Your task to perform on an android device: toggle sleep mode Image 0: 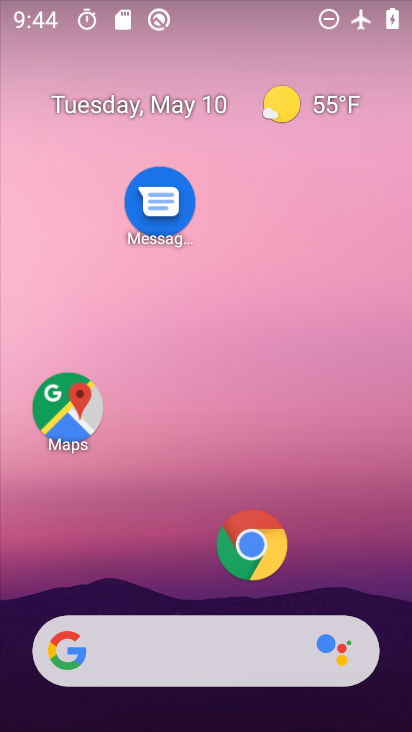
Step 0: drag from (185, 589) to (192, 161)
Your task to perform on an android device: toggle sleep mode Image 1: 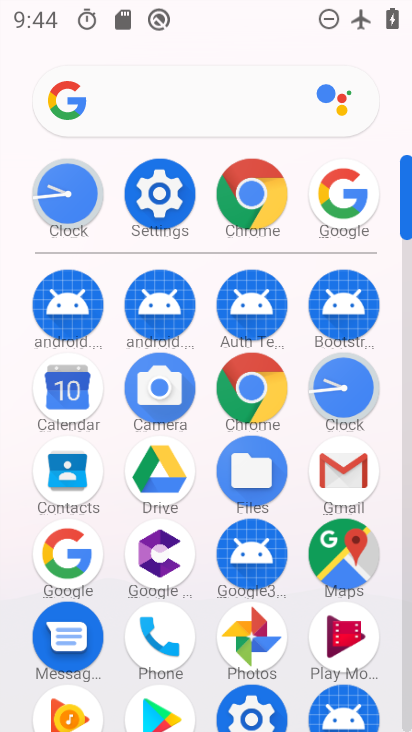
Step 1: click (175, 179)
Your task to perform on an android device: toggle sleep mode Image 2: 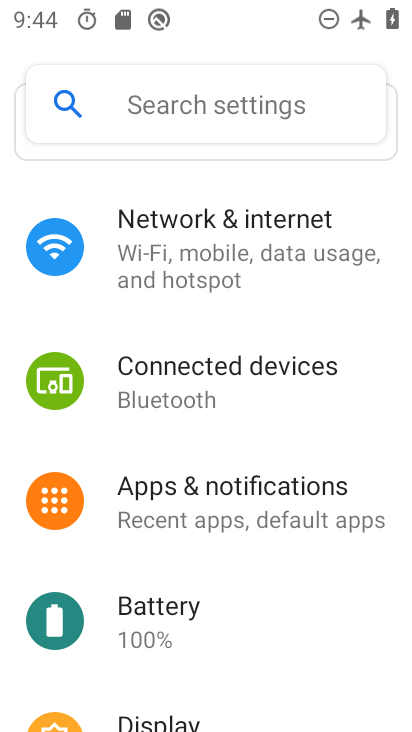
Step 2: drag from (202, 592) to (195, 382)
Your task to perform on an android device: toggle sleep mode Image 3: 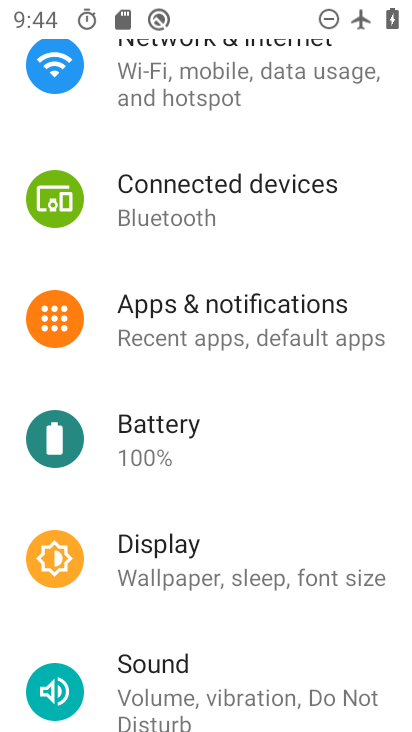
Step 3: click (157, 536)
Your task to perform on an android device: toggle sleep mode Image 4: 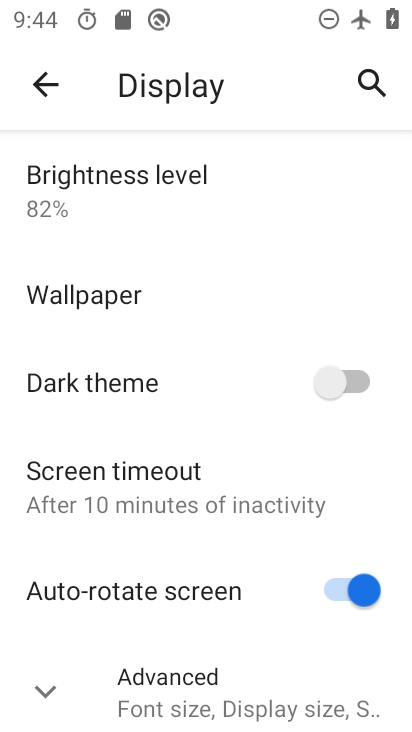
Step 4: drag from (194, 655) to (180, 352)
Your task to perform on an android device: toggle sleep mode Image 5: 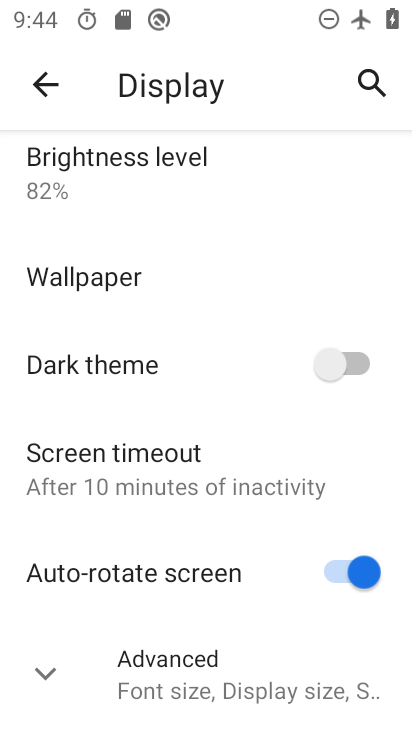
Step 5: click (181, 662)
Your task to perform on an android device: toggle sleep mode Image 6: 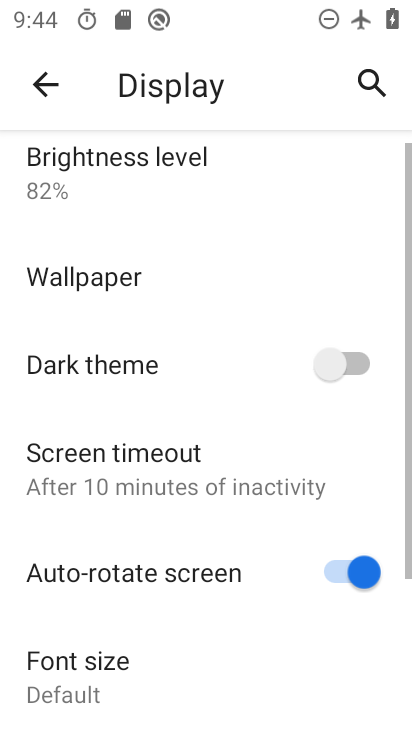
Step 6: drag from (161, 596) to (180, 647)
Your task to perform on an android device: toggle sleep mode Image 7: 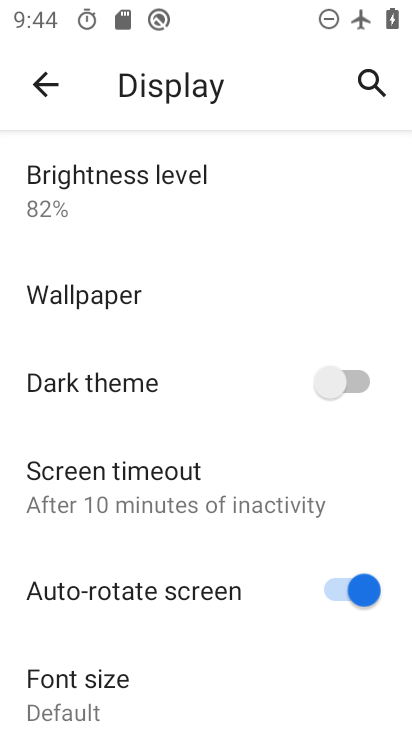
Step 7: click (160, 481)
Your task to perform on an android device: toggle sleep mode Image 8: 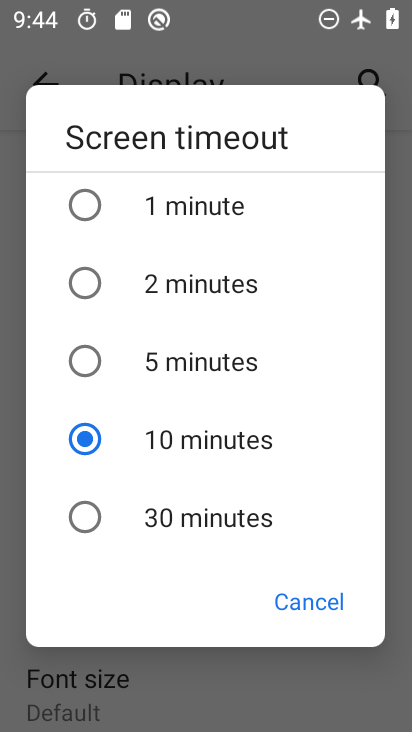
Step 8: click (174, 294)
Your task to perform on an android device: toggle sleep mode Image 9: 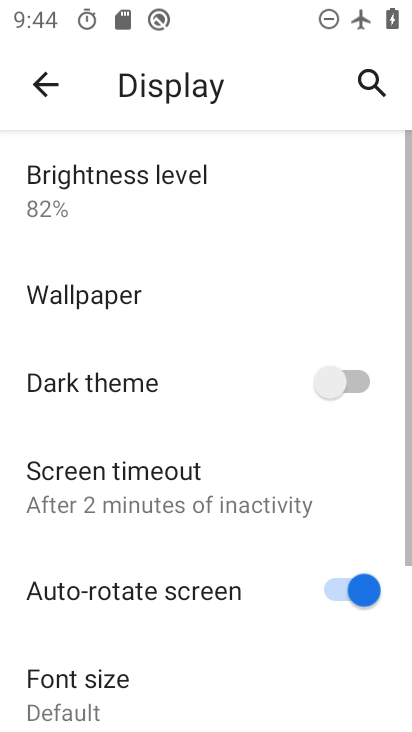
Step 9: task complete